Your task to perform on an android device: Search for Italian restaurants on Maps Image 0: 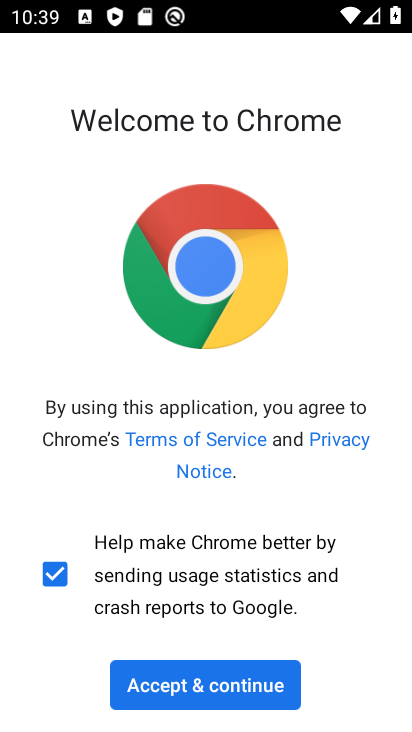
Step 0: press home button
Your task to perform on an android device: Search for Italian restaurants on Maps Image 1: 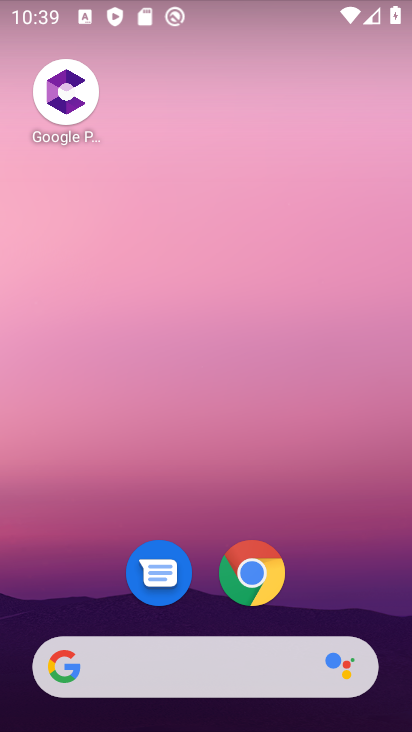
Step 1: drag from (206, 600) to (153, 141)
Your task to perform on an android device: Search for Italian restaurants on Maps Image 2: 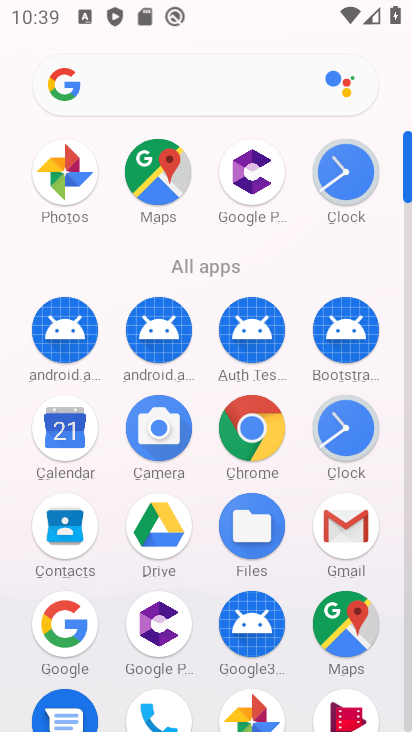
Step 2: click (175, 171)
Your task to perform on an android device: Search for Italian restaurants on Maps Image 3: 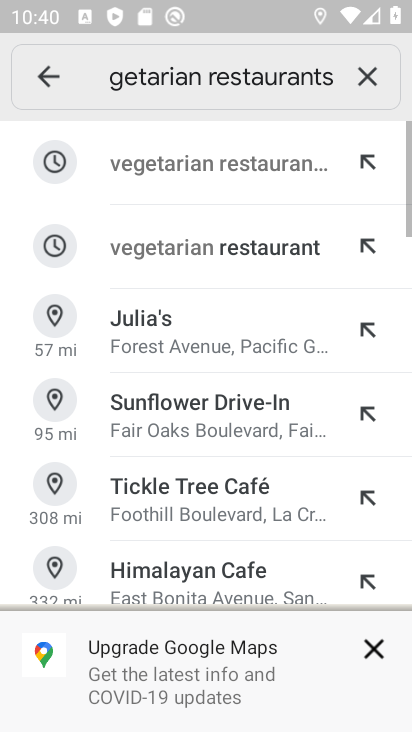
Step 3: click (362, 83)
Your task to perform on an android device: Search for Italian restaurants on Maps Image 4: 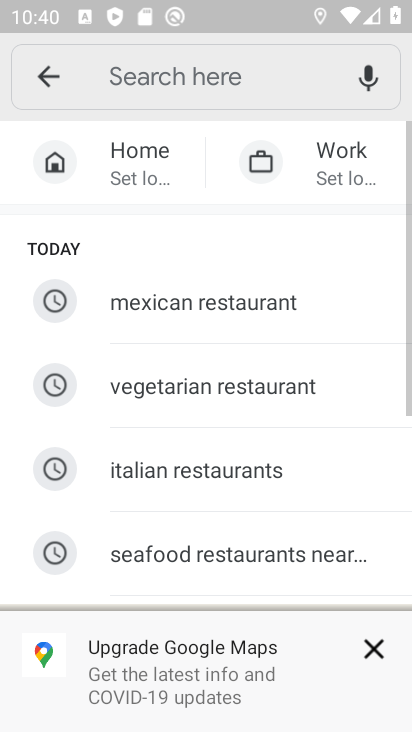
Step 4: click (213, 75)
Your task to perform on an android device: Search for Italian restaurants on Maps Image 5: 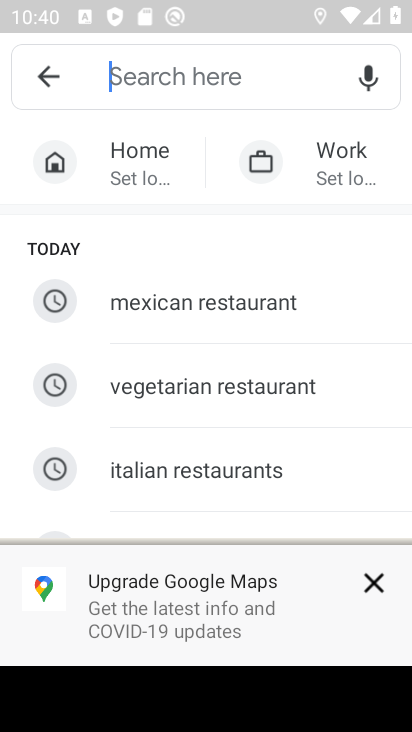
Step 5: type "italian restaurants"
Your task to perform on an android device: Search for Italian restaurants on Maps Image 6: 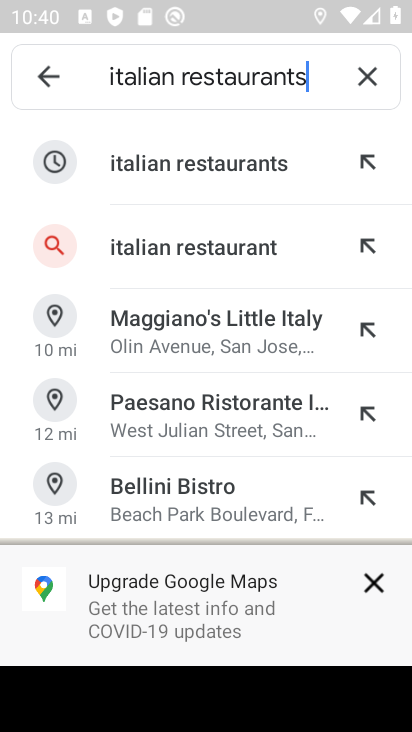
Step 6: task complete